Your task to perform on an android device: turn off notifications in google photos Image 0: 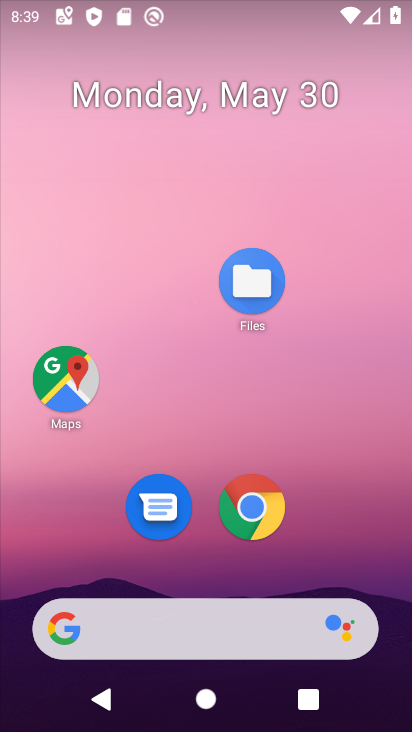
Step 0: drag from (222, 582) to (123, 1)
Your task to perform on an android device: turn off notifications in google photos Image 1: 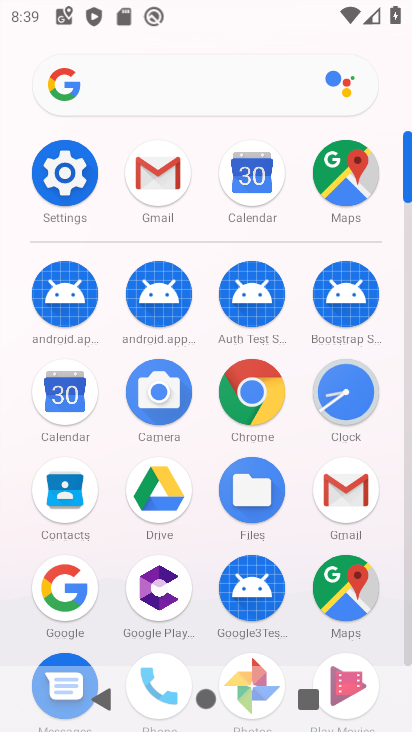
Step 1: drag from (215, 552) to (218, 235)
Your task to perform on an android device: turn off notifications in google photos Image 2: 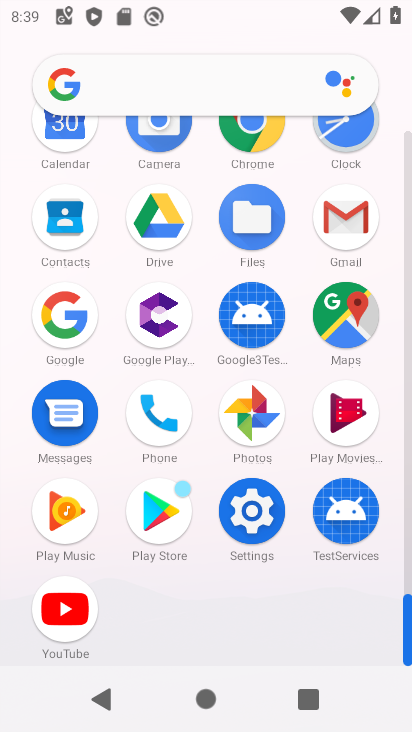
Step 2: click (268, 425)
Your task to perform on an android device: turn off notifications in google photos Image 3: 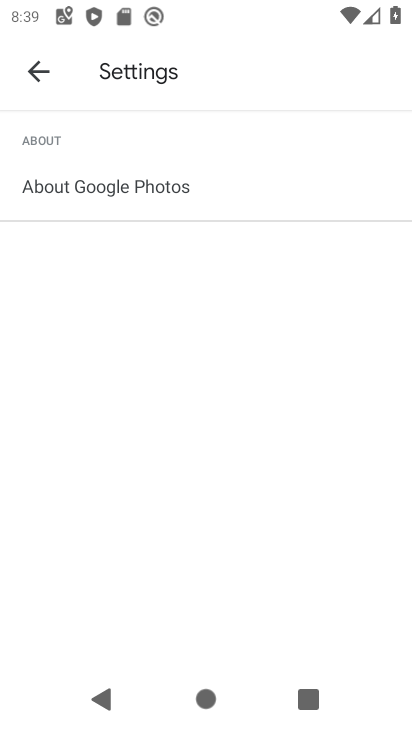
Step 3: click (51, 76)
Your task to perform on an android device: turn off notifications in google photos Image 4: 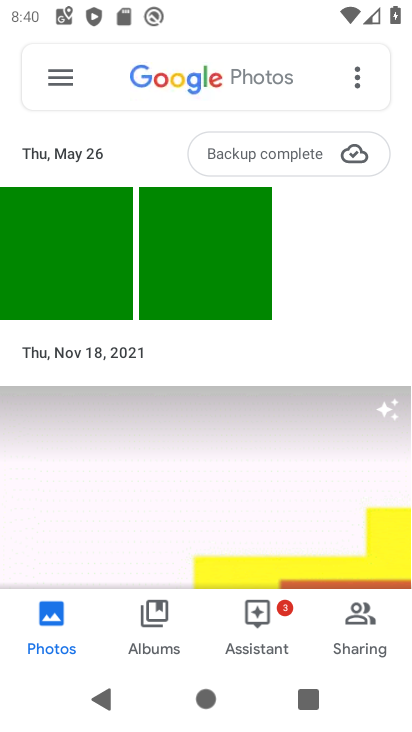
Step 4: click (54, 82)
Your task to perform on an android device: turn off notifications in google photos Image 5: 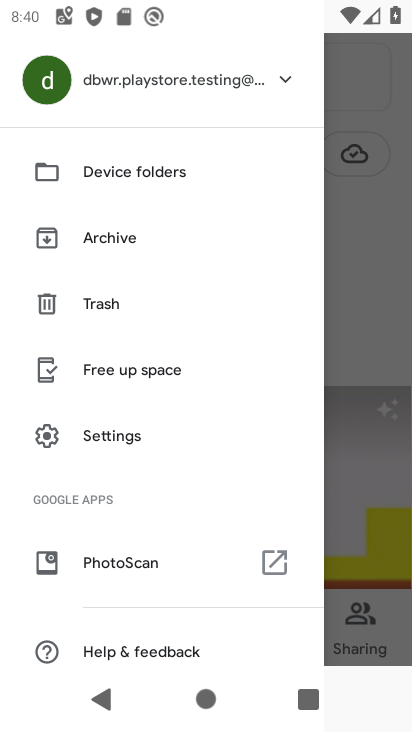
Step 5: click (117, 440)
Your task to perform on an android device: turn off notifications in google photos Image 6: 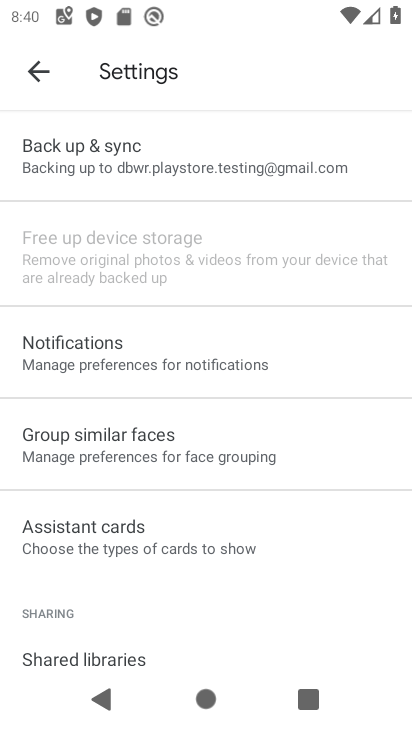
Step 6: click (129, 355)
Your task to perform on an android device: turn off notifications in google photos Image 7: 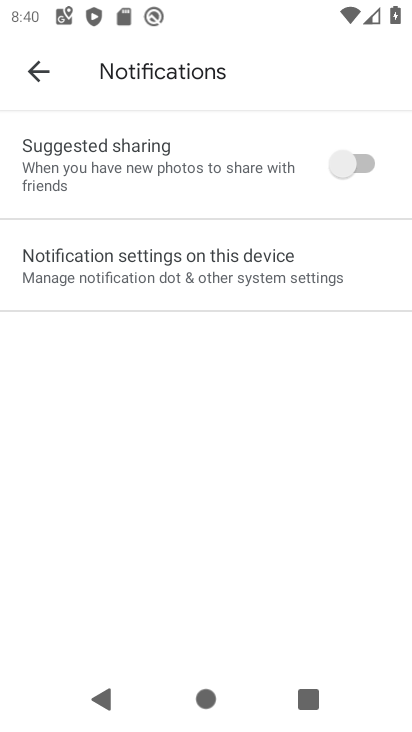
Step 7: click (124, 281)
Your task to perform on an android device: turn off notifications in google photos Image 8: 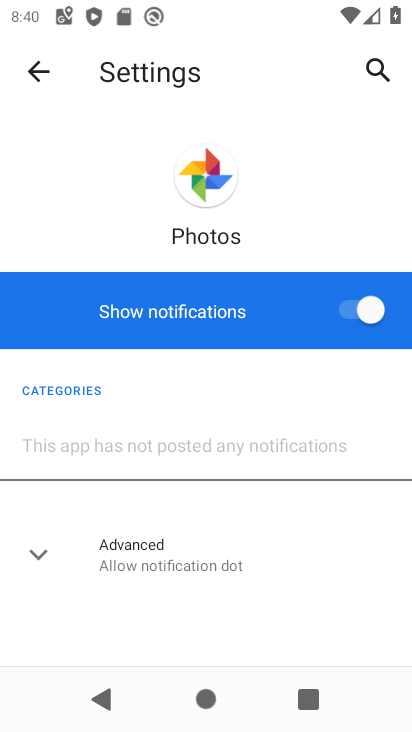
Step 8: click (331, 323)
Your task to perform on an android device: turn off notifications in google photos Image 9: 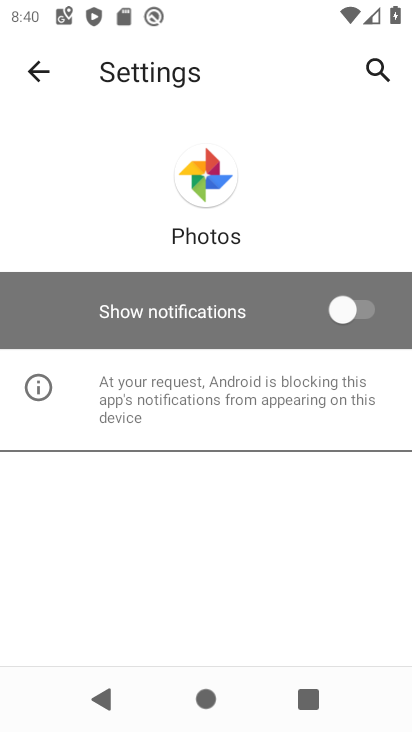
Step 9: task complete